Your task to perform on an android device: What is the recent news? Image 0: 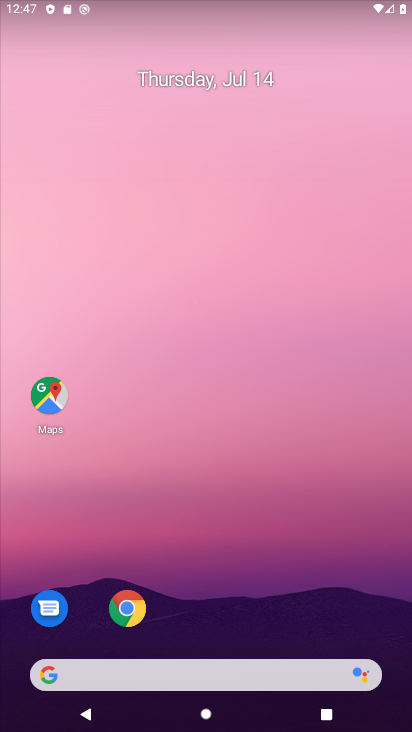
Step 0: drag from (9, 290) to (242, 305)
Your task to perform on an android device: What is the recent news? Image 1: 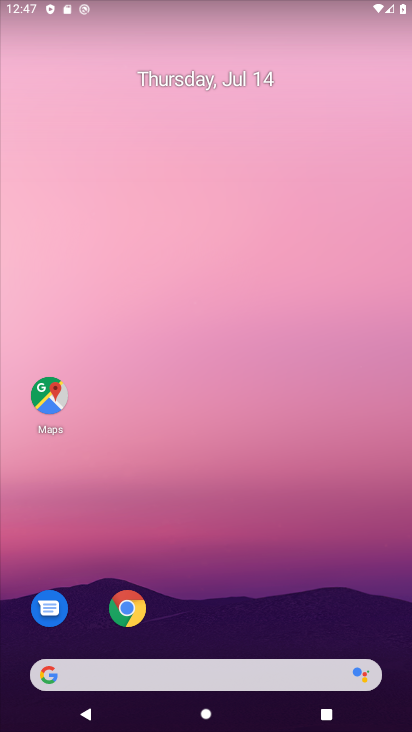
Step 1: drag from (0, 269) to (251, 272)
Your task to perform on an android device: What is the recent news? Image 2: 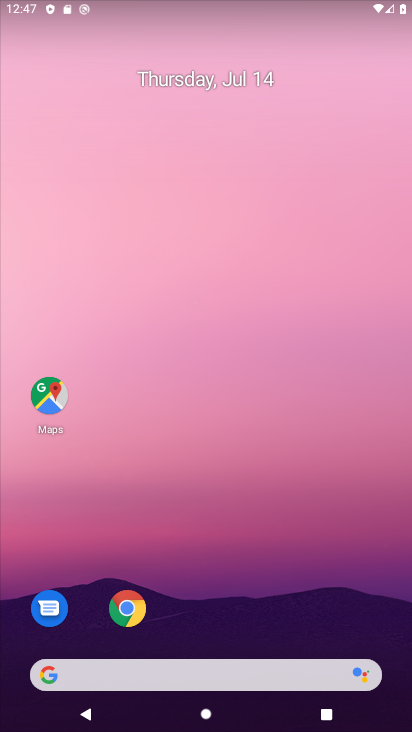
Step 2: drag from (0, 267) to (375, 327)
Your task to perform on an android device: What is the recent news? Image 3: 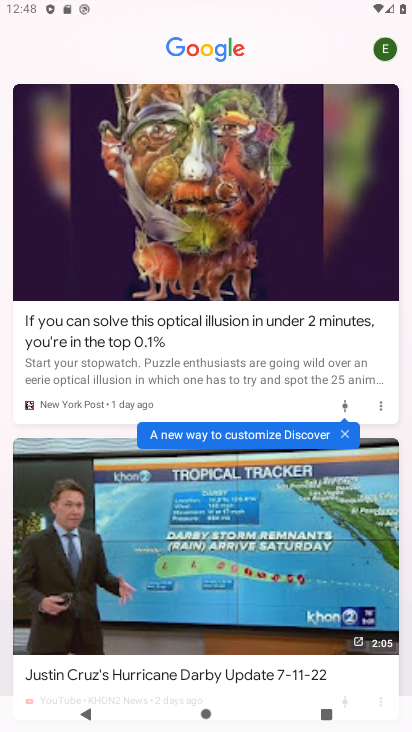
Step 3: drag from (230, 435) to (206, 52)
Your task to perform on an android device: What is the recent news? Image 4: 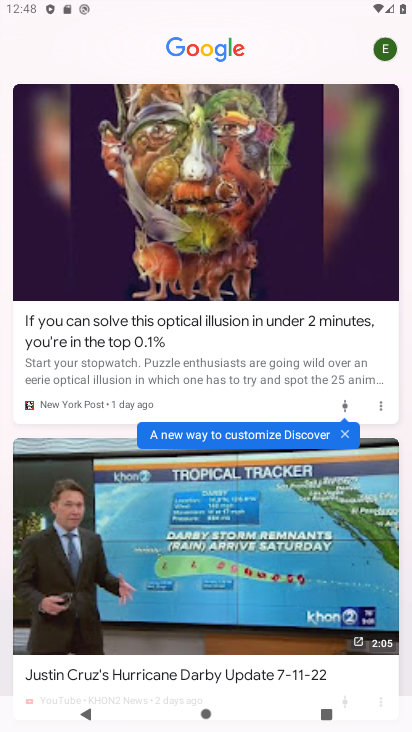
Step 4: drag from (102, 430) to (107, 60)
Your task to perform on an android device: What is the recent news? Image 5: 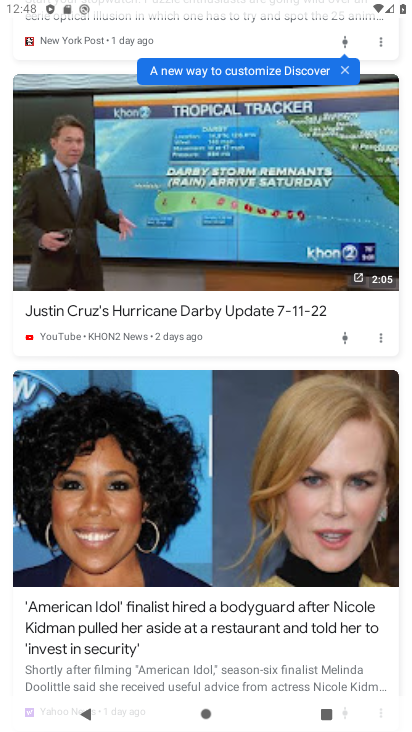
Step 5: click (174, 18)
Your task to perform on an android device: What is the recent news? Image 6: 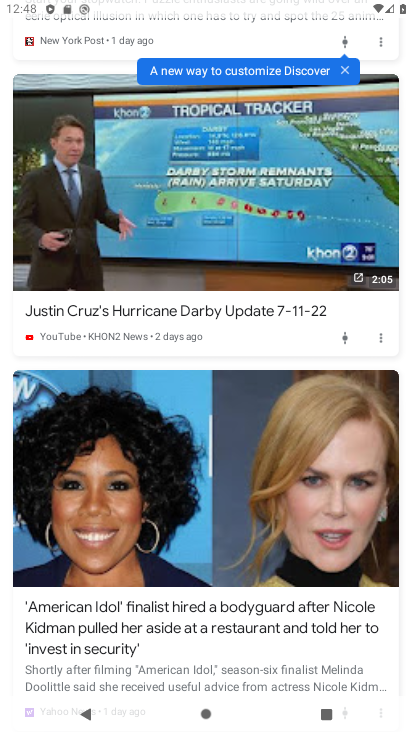
Step 6: task complete